Your task to perform on an android device: turn pop-ups off in chrome Image 0: 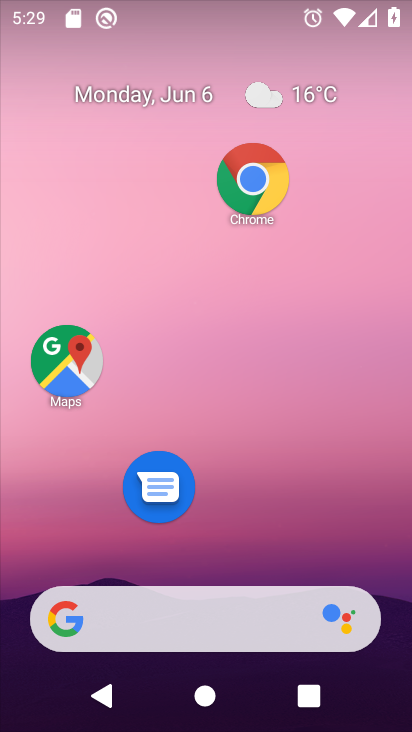
Step 0: click (252, 180)
Your task to perform on an android device: turn pop-ups off in chrome Image 1: 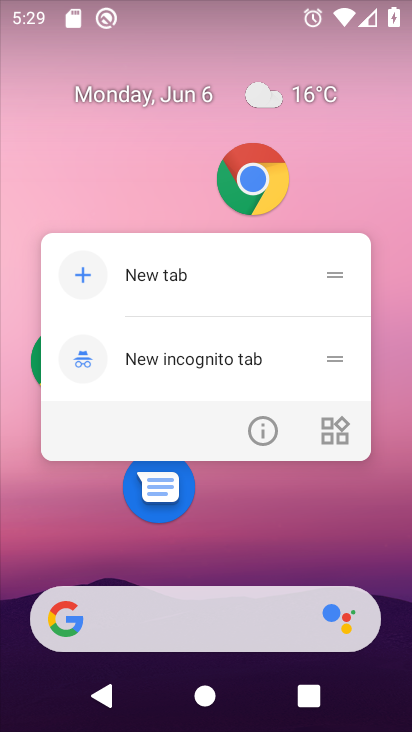
Step 1: click (254, 167)
Your task to perform on an android device: turn pop-ups off in chrome Image 2: 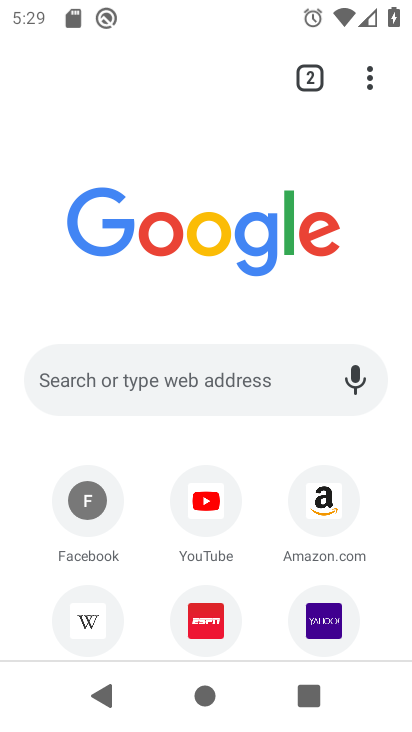
Step 2: click (369, 78)
Your task to perform on an android device: turn pop-ups off in chrome Image 3: 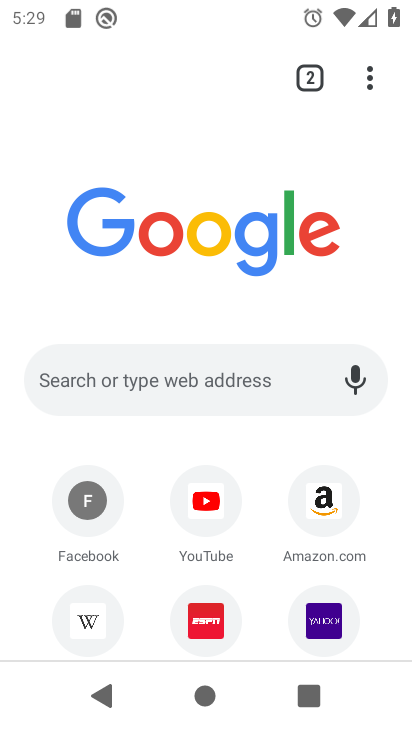
Step 3: click (369, 80)
Your task to perform on an android device: turn pop-ups off in chrome Image 4: 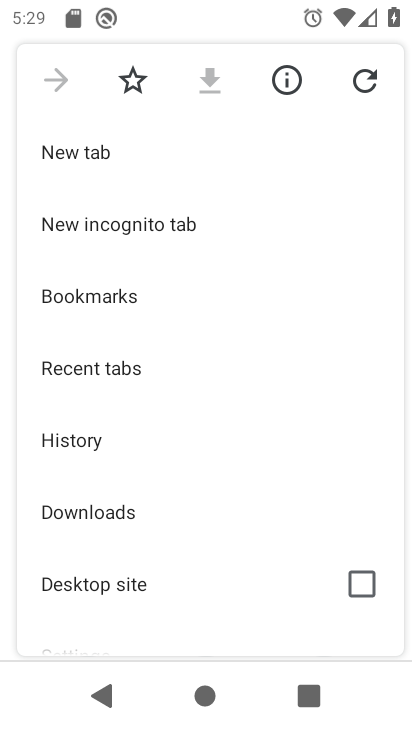
Step 4: drag from (186, 517) to (241, 161)
Your task to perform on an android device: turn pop-ups off in chrome Image 5: 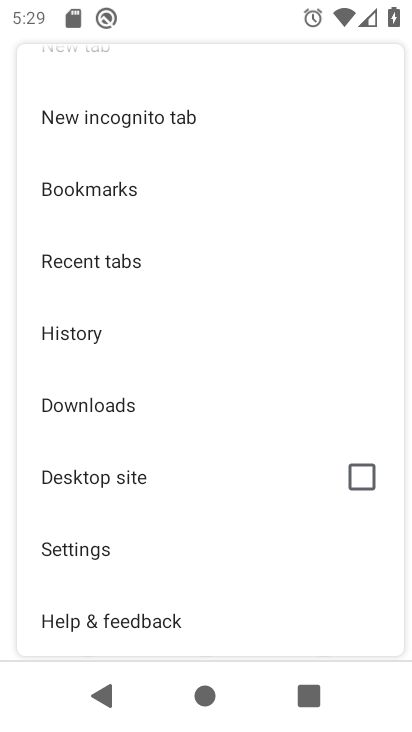
Step 5: click (159, 546)
Your task to perform on an android device: turn pop-ups off in chrome Image 6: 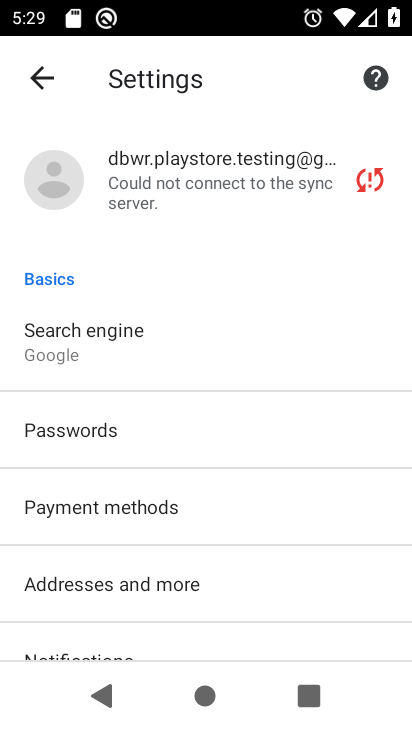
Step 6: drag from (230, 512) to (224, 180)
Your task to perform on an android device: turn pop-ups off in chrome Image 7: 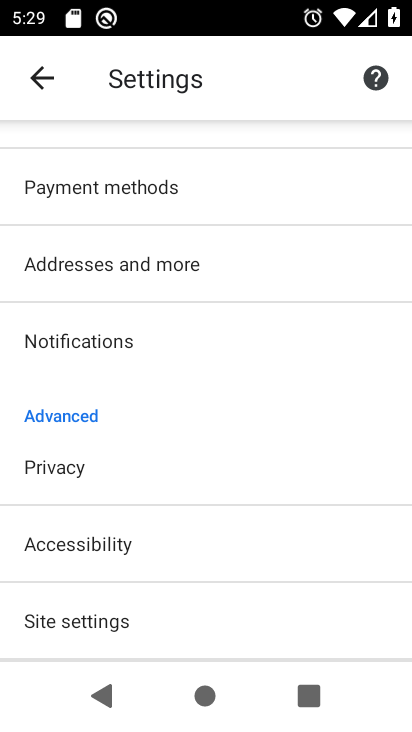
Step 7: click (182, 622)
Your task to perform on an android device: turn pop-ups off in chrome Image 8: 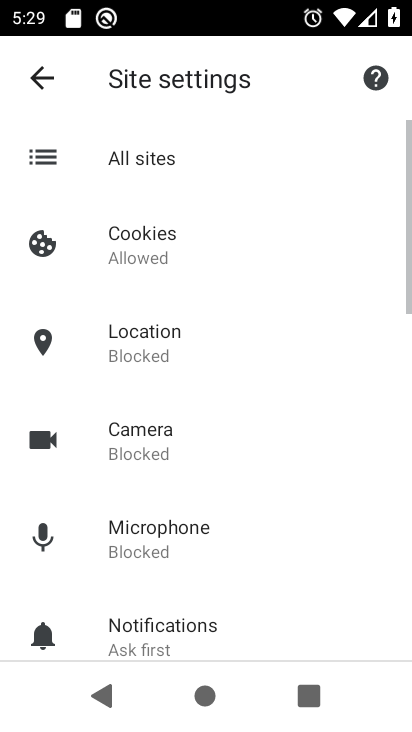
Step 8: drag from (254, 551) to (259, 170)
Your task to perform on an android device: turn pop-ups off in chrome Image 9: 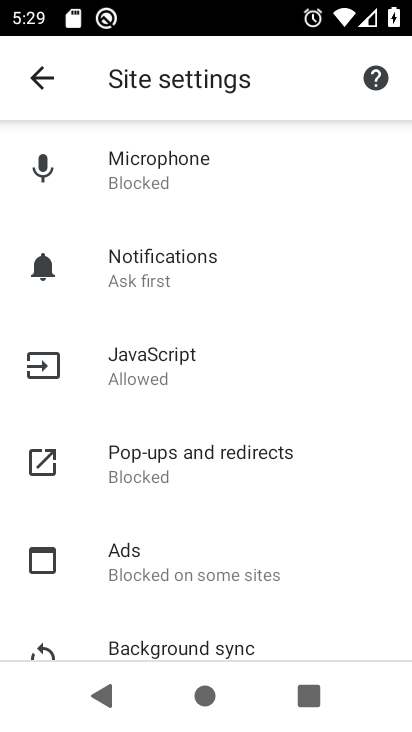
Step 9: click (257, 448)
Your task to perform on an android device: turn pop-ups off in chrome Image 10: 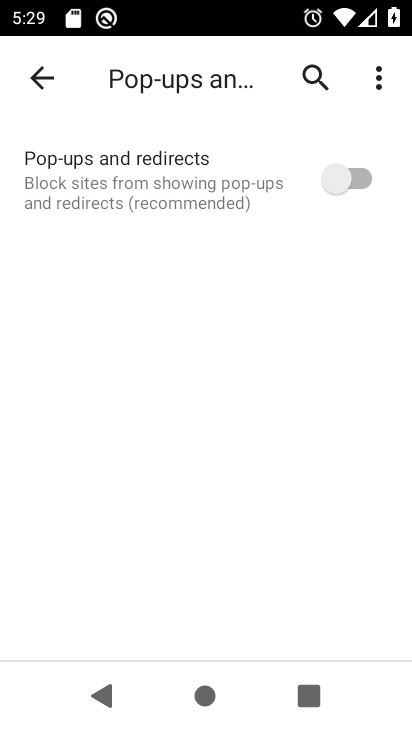
Step 10: task complete